Your task to perform on an android device: turn pop-ups off in chrome Image 0: 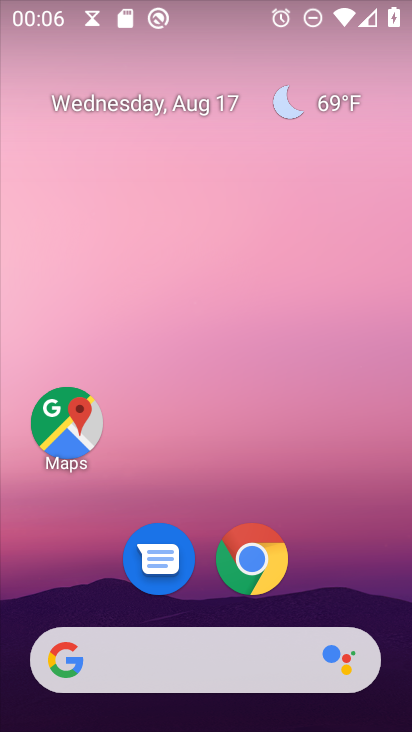
Step 0: click (251, 562)
Your task to perform on an android device: turn pop-ups off in chrome Image 1: 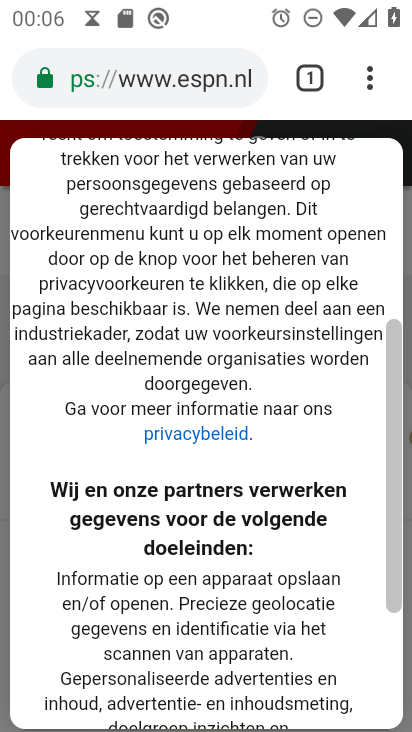
Step 1: click (391, 88)
Your task to perform on an android device: turn pop-ups off in chrome Image 2: 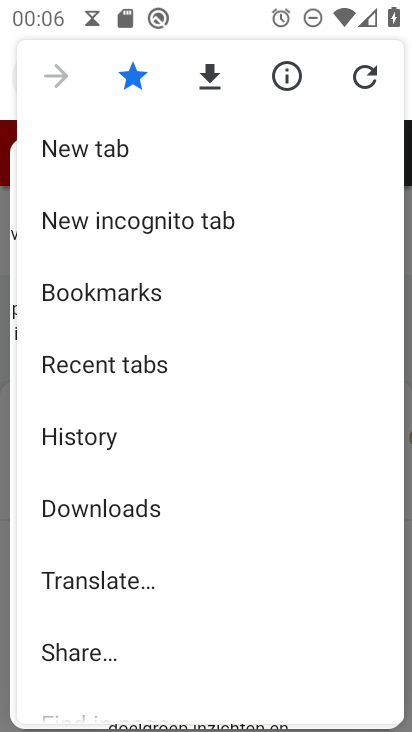
Step 2: drag from (149, 547) to (193, 448)
Your task to perform on an android device: turn pop-ups off in chrome Image 3: 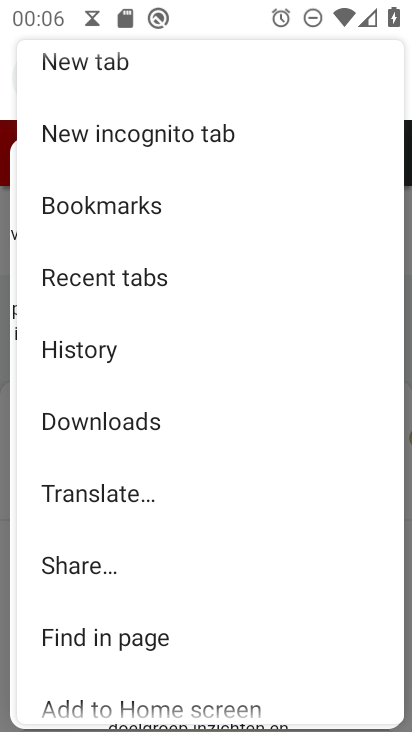
Step 3: drag from (145, 592) to (190, 495)
Your task to perform on an android device: turn pop-ups off in chrome Image 4: 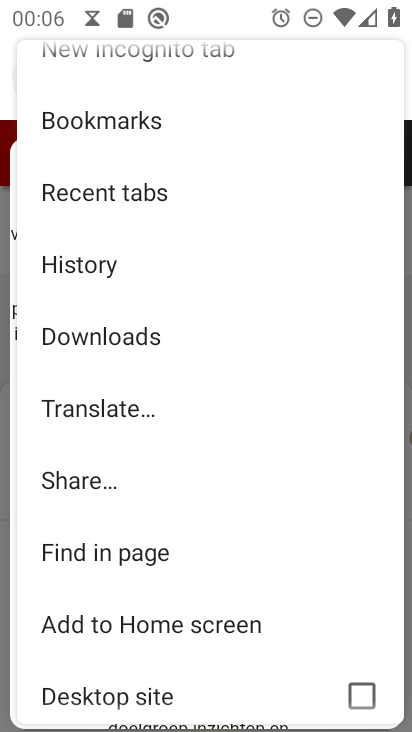
Step 4: drag from (152, 599) to (202, 504)
Your task to perform on an android device: turn pop-ups off in chrome Image 5: 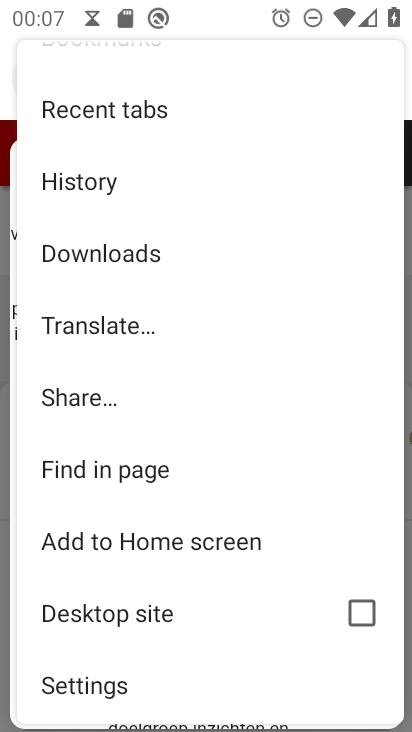
Step 5: drag from (129, 584) to (215, 475)
Your task to perform on an android device: turn pop-ups off in chrome Image 6: 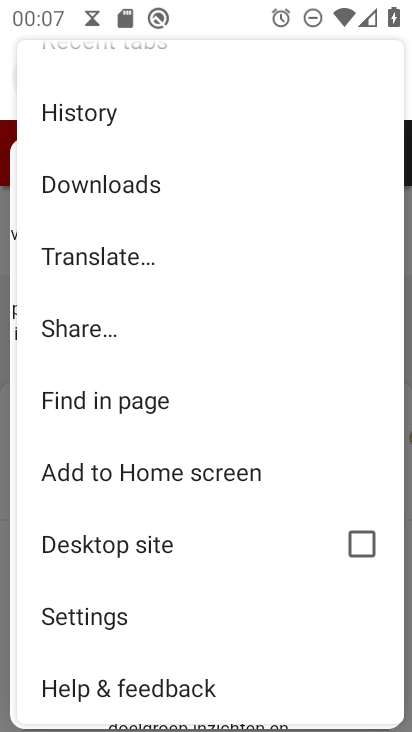
Step 6: click (118, 620)
Your task to perform on an android device: turn pop-ups off in chrome Image 7: 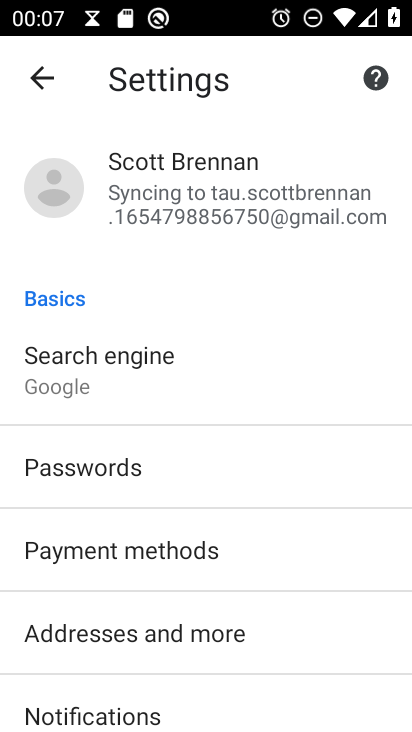
Step 7: drag from (178, 567) to (281, 422)
Your task to perform on an android device: turn pop-ups off in chrome Image 8: 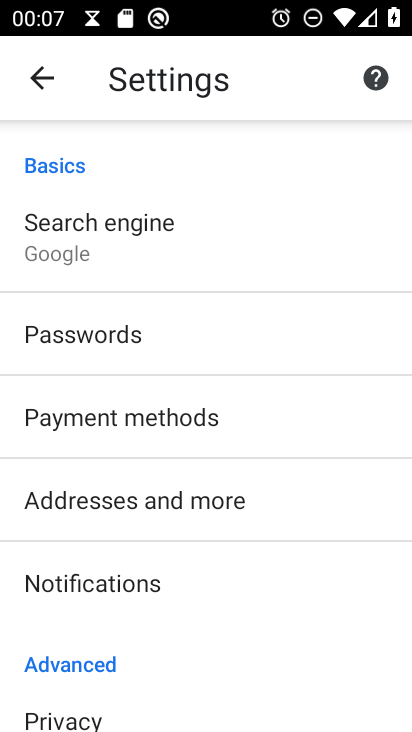
Step 8: drag from (184, 600) to (244, 456)
Your task to perform on an android device: turn pop-ups off in chrome Image 9: 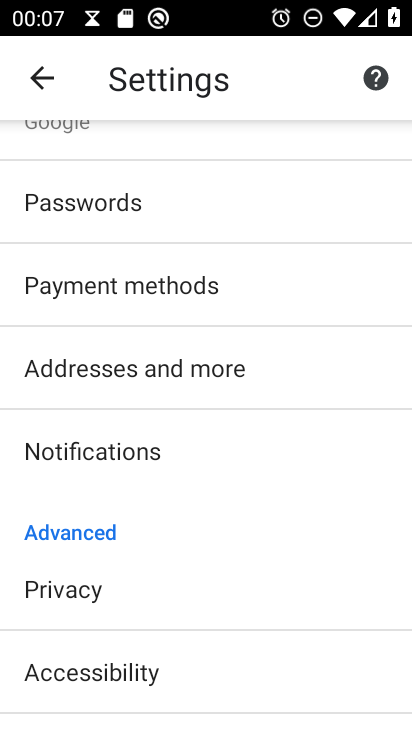
Step 9: drag from (156, 578) to (236, 466)
Your task to perform on an android device: turn pop-ups off in chrome Image 10: 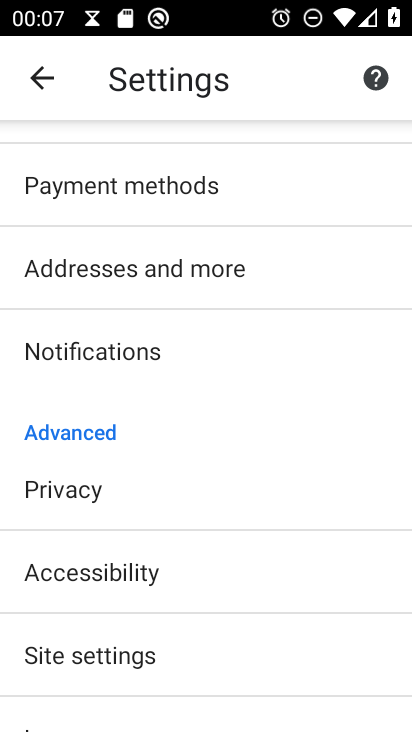
Step 10: drag from (188, 622) to (229, 522)
Your task to perform on an android device: turn pop-ups off in chrome Image 11: 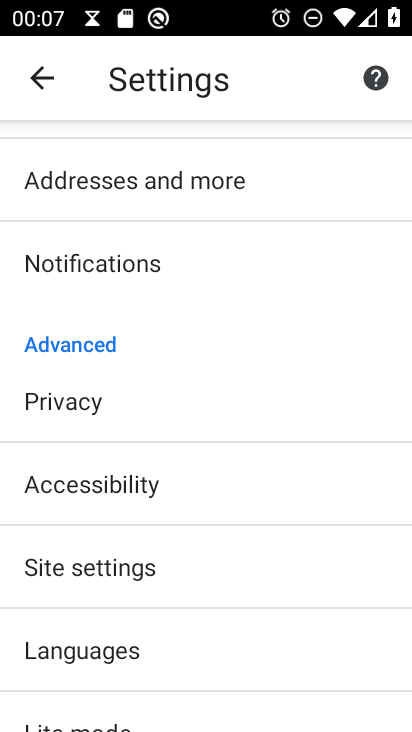
Step 11: drag from (157, 641) to (235, 533)
Your task to perform on an android device: turn pop-ups off in chrome Image 12: 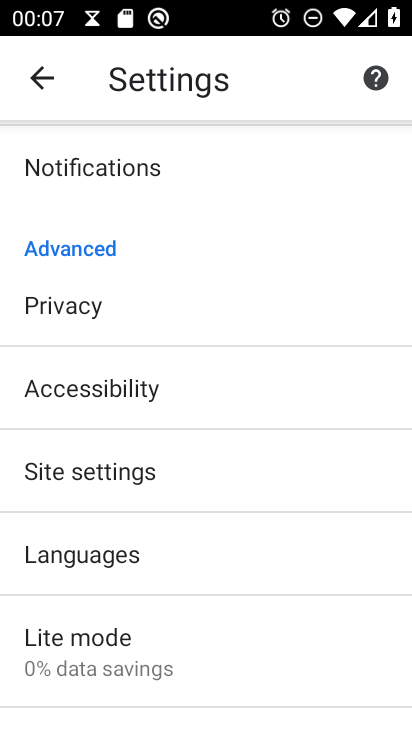
Step 12: click (130, 467)
Your task to perform on an android device: turn pop-ups off in chrome Image 13: 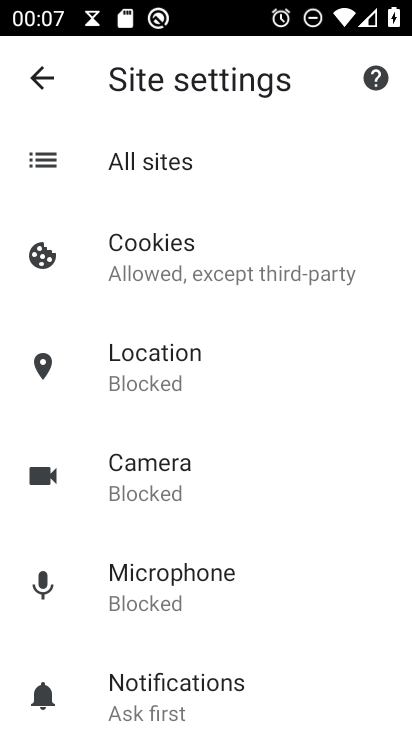
Step 13: drag from (202, 622) to (249, 485)
Your task to perform on an android device: turn pop-ups off in chrome Image 14: 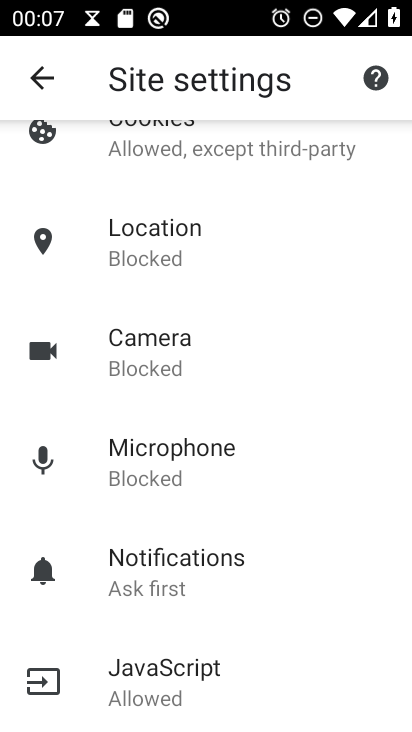
Step 14: drag from (209, 628) to (262, 534)
Your task to perform on an android device: turn pop-ups off in chrome Image 15: 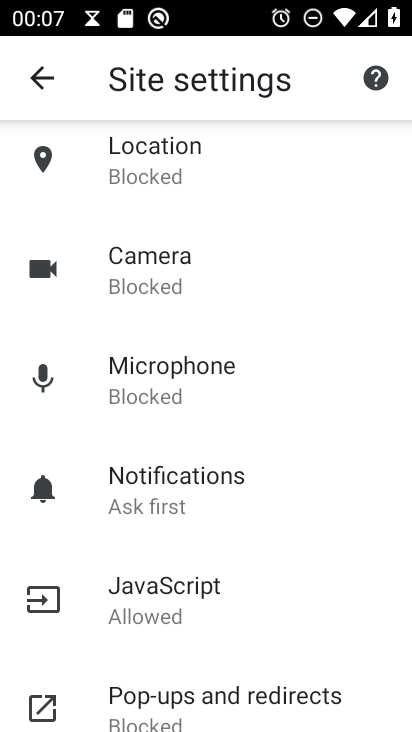
Step 15: drag from (207, 649) to (279, 543)
Your task to perform on an android device: turn pop-ups off in chrome Image 16: 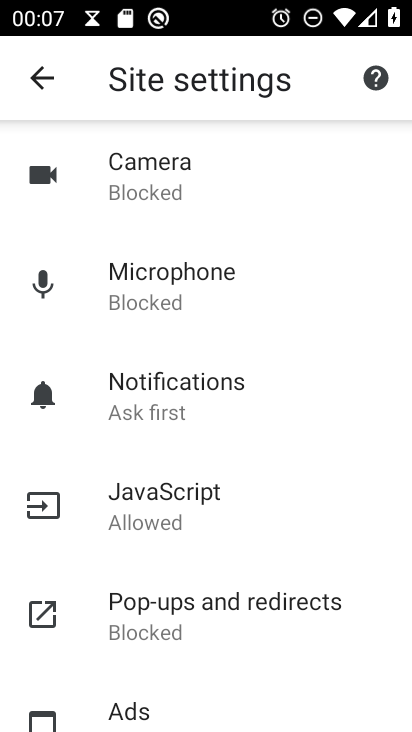
Step 16: click (219, 607)
Your task to perform on an android device: turn pop-ups off in chrome Image 17: 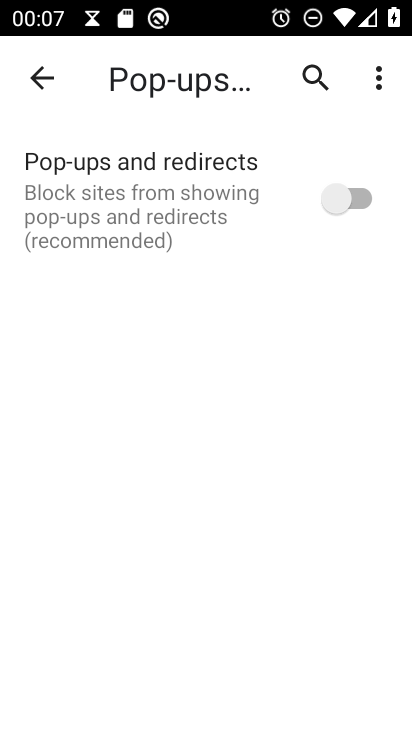
Step 17: task complete